Your task to perform on an android device: turn on javascript in the chrome app Image 0: 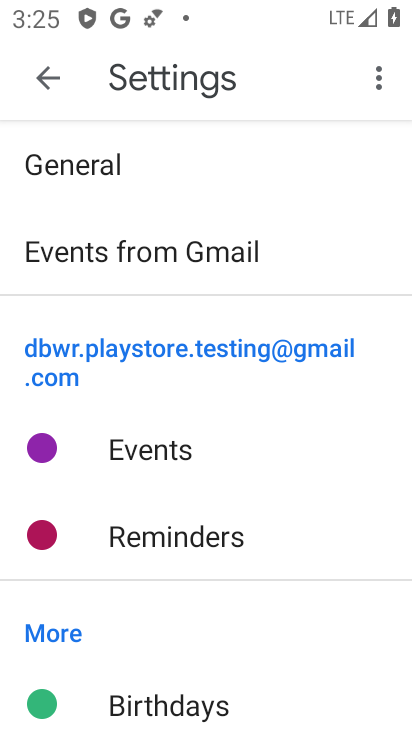
Step 0: press home button
Your task to perform on an android device: turn on javascript in the chrome app Image 1: 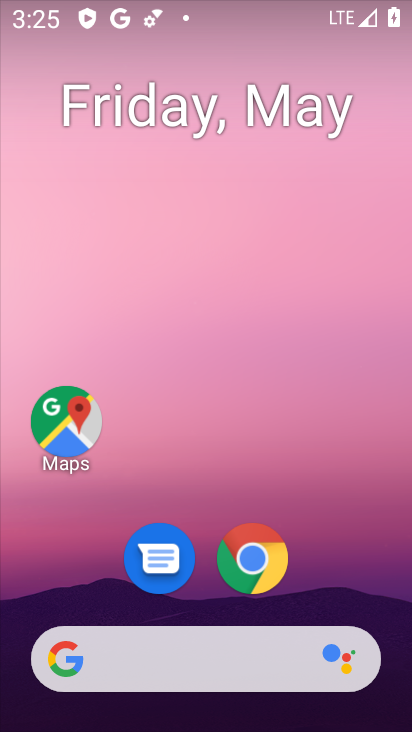
Step 1: click (249, 564)
Your task to perform on an android device: turn on javascript in the chrome app Image 2: 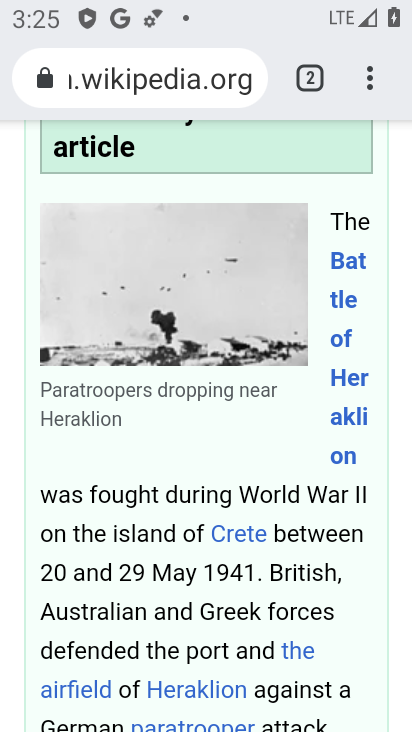
Step 2: drag from (366, 84) to (183, 617)
Your task to perform on an android device: turn on javascript in the chrome app Image 3: 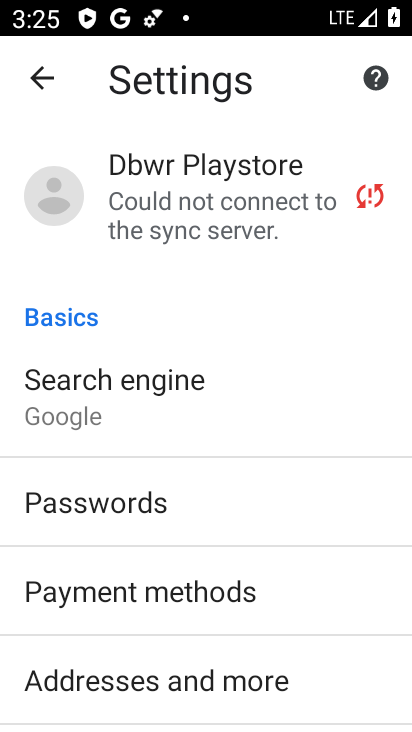
Step 3: drag from (215, 659) to (245, 253)
Your task to perform on an android device: turn on javascript in the chrome app Image 4: 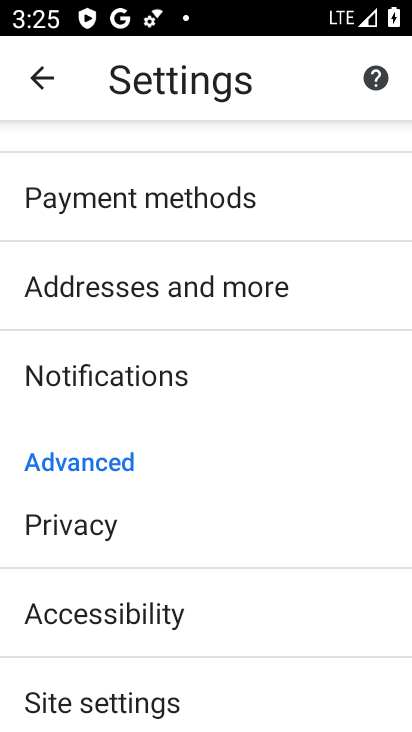
Step 4: drag from (247, 651) to (303, 412)
Your task to perform on an android device: turn on javascript in the chrome app Image 5: 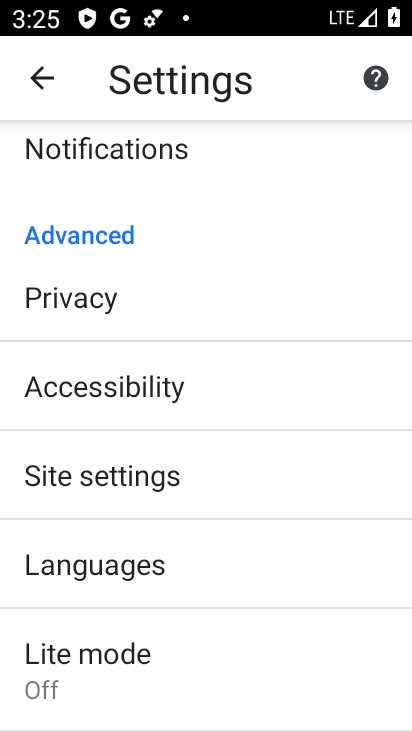
Step 5: click (119, 479)
Your task to perform on an android device: turn on javascript in the chrome app Image 6: 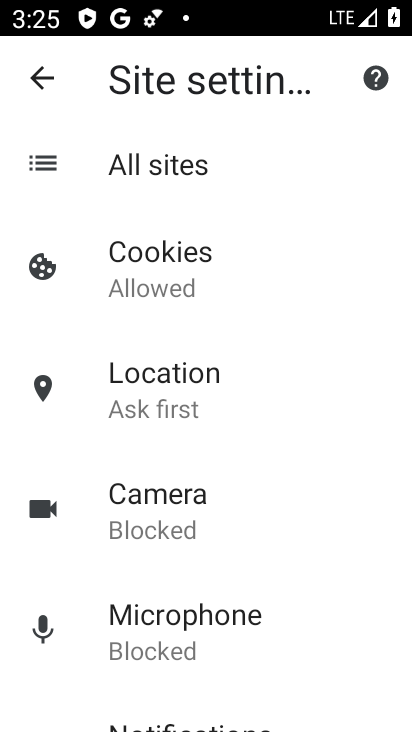
Step 6: drag from (266, 607) to (293, 235)
Your task to perform on an android device: turn on javascript in the chrome app Image 7: 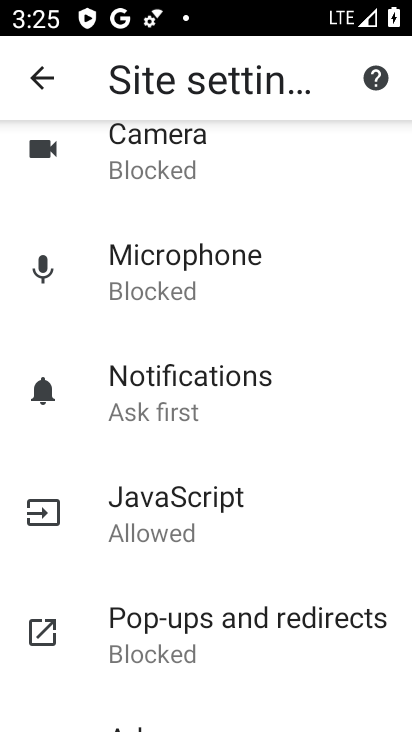
Step 7: click (196, 504)
Your task to perform on an android device: turn on javascript in the chrome app Image 8: 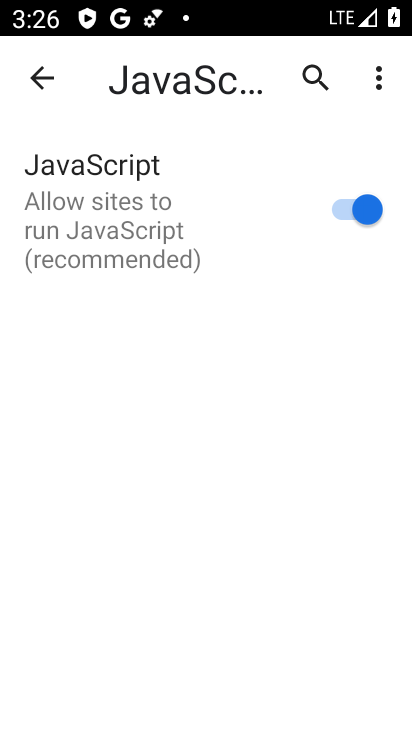
Step 8: task complete